Your task to perform on an android device: clear history in the chrome app Image 0: 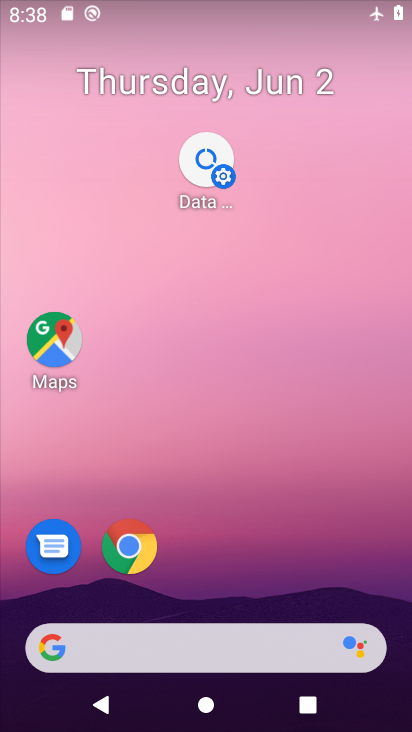
Step 0: drag from (266, 667) to (219, 340)
Your task to perform on an android device: clear history in the chrome app Image 1: 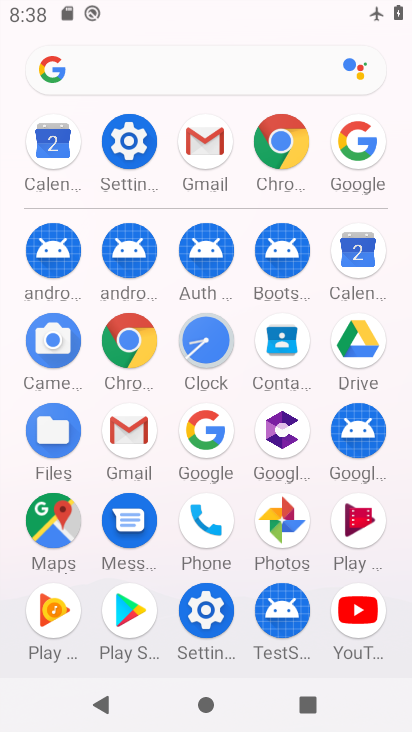
Step 1: drag from (278, 606) to (201, 178)
Your task to perform on an android device: clear history in the chrome app Image 2: 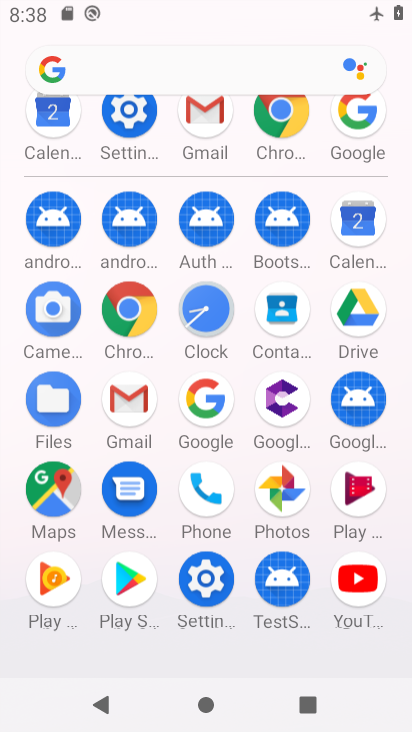
Step 2: drag from (260, 496) to (208, 62)
Your task to perform on an android device: clear history in the chrome app Image 3: 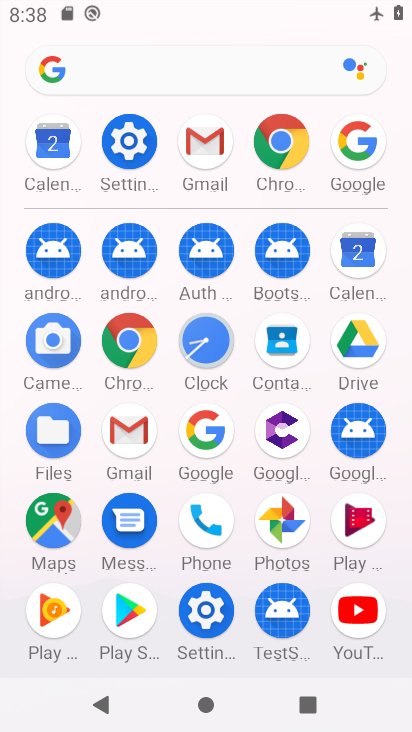
Step 3: drag from (264, 260) to (158, 179)
Your task to perform on an android device: clear history in the chrome app Image 4: 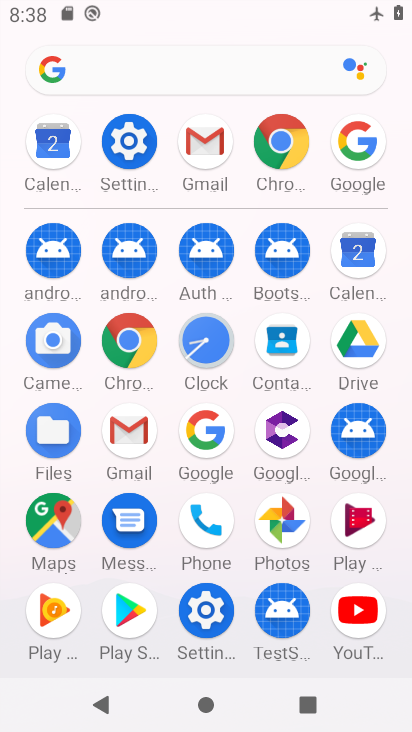
Step 4: click (275, 156)
Your task to perform on an android device: clear history in the chrome app Image 5: 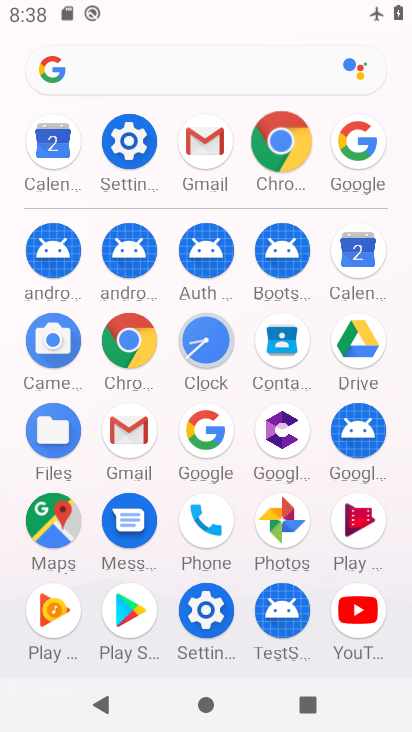
Step 5: click (283, 160)
Your task to perform on an android device: clear history in the chrome app Image 6: 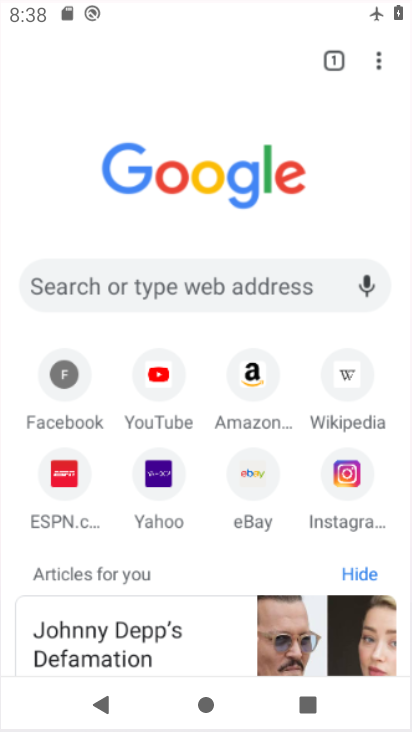
Step 6: click (281, 160)
Your task to perform on an android device: clear history in the chrome app Image 7: 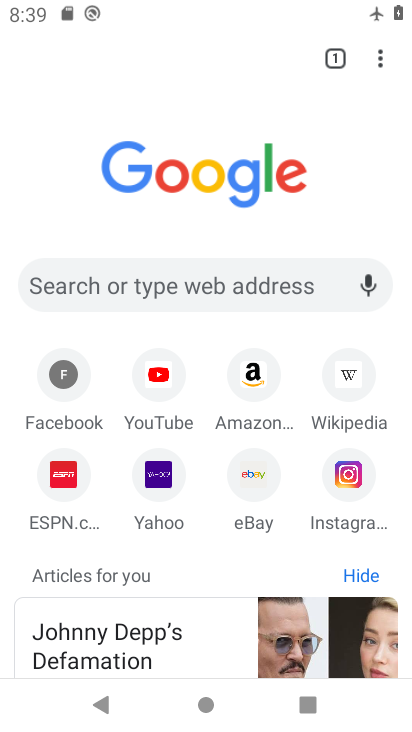
Step 7: click (377, 63)
Your task to perform on an android device: clear history in the chrome app Image 8: 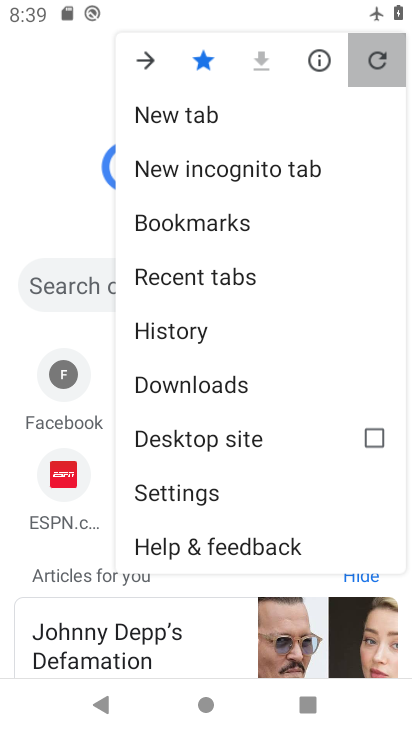
Step 8: drag from (377, 63) to (199, 465)
Your task to perform on an android device: clear history in the chrome app Image 9: 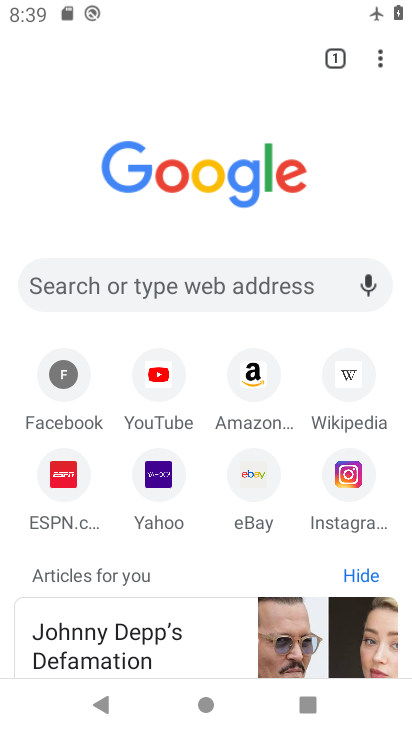
Step 9: drag from (382, 63) to (177, 325)
Your task to perform on an android device: clear history in the chrome app Image 10: 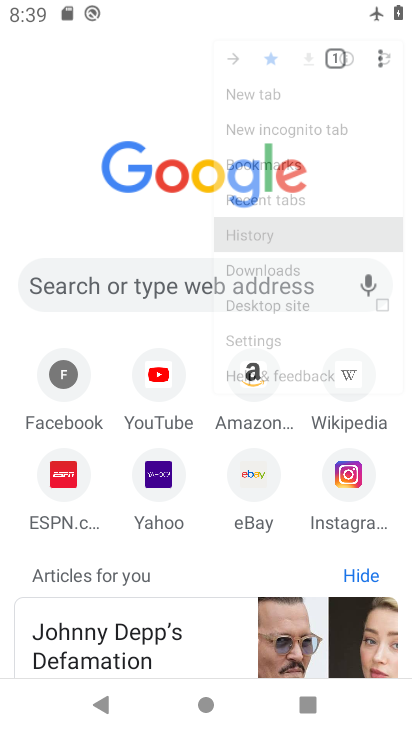
Step 10: click (178, 326)
Your task to perform on an android device: clear history in the chrome app Image 11: 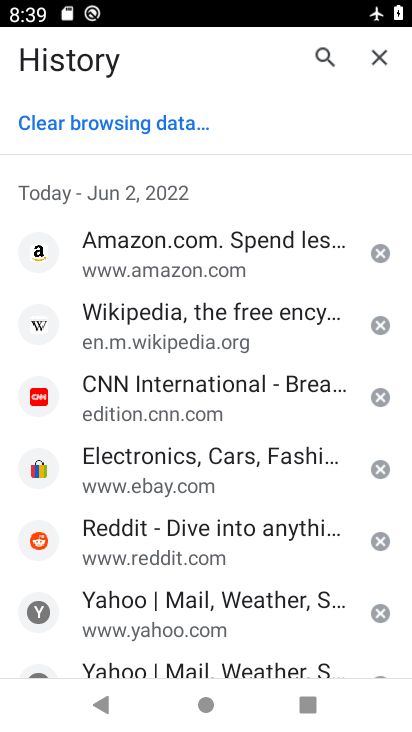
Step 11: click (153, 121)
Your task to perform on an android device: clear history in the chrome app Image 12: 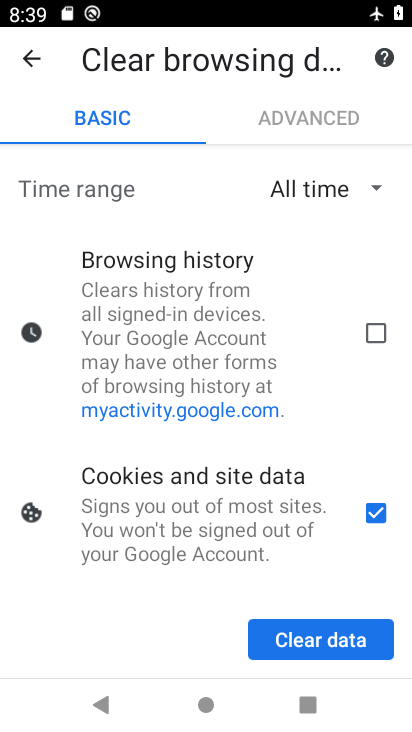
Step 12: click (347, 638)
Your task to perform on an android device: clear history in the chrome app Image 13: 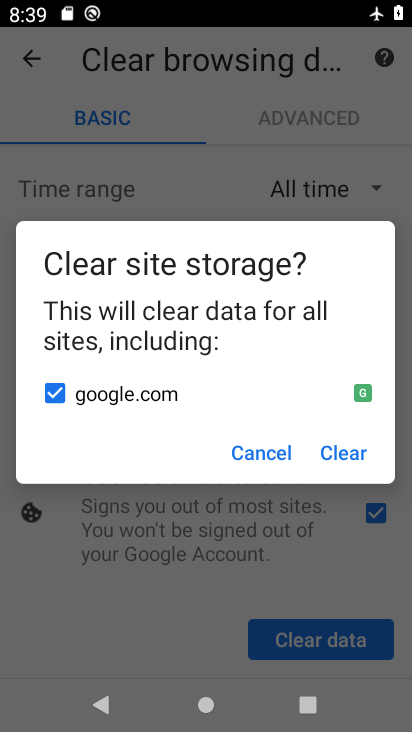
Step 13: click (333, 460)
Your task to perform on an android device: clear history in the chrome app Image 14: 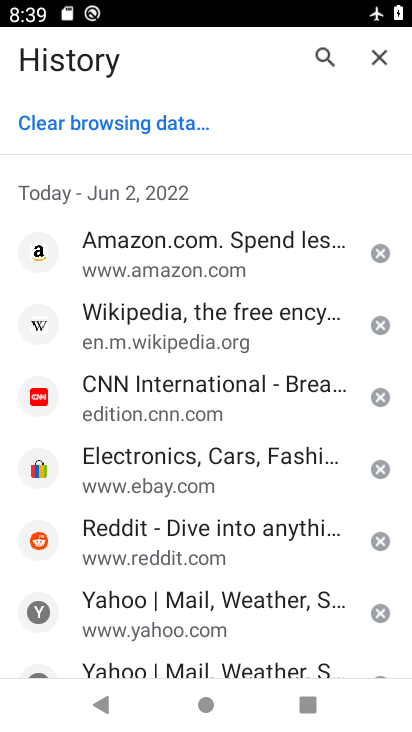
Step 14: task complete